Your task to perform on an android device: find photos in the google photos app Image 0: 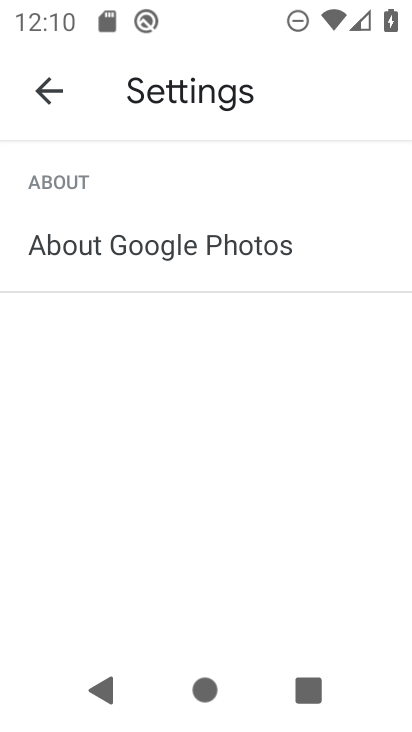
Step 0: click (41, 91)
Your task to perform on an android device: find photos in the google photos app Image 1: 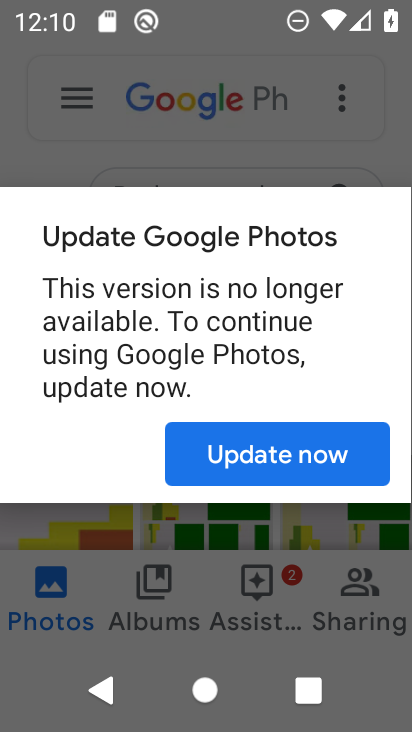
Step 1: click (257, 474)
Your task to perform on an android device: find photos in the google photos app Image 2: 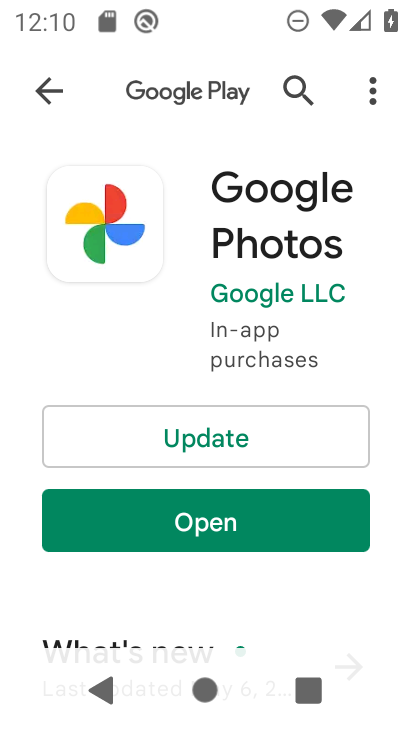
Step 2: click (174, 449)
Your task to perform on an android device: find photos in the google photos app Image 3: 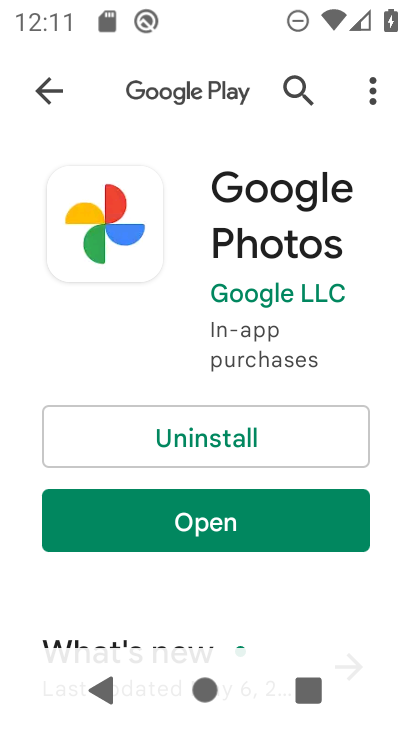
Step 3: click (188, 515)
Your task to perform on an android device: find photos in the google photos app Image 4: 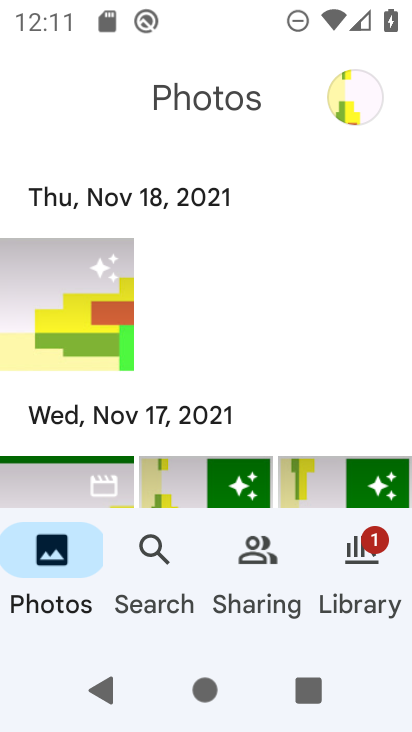
Step 4: task complete